Your task to perform on an android device: Check the settings for the Google Play Movies app Image 0: 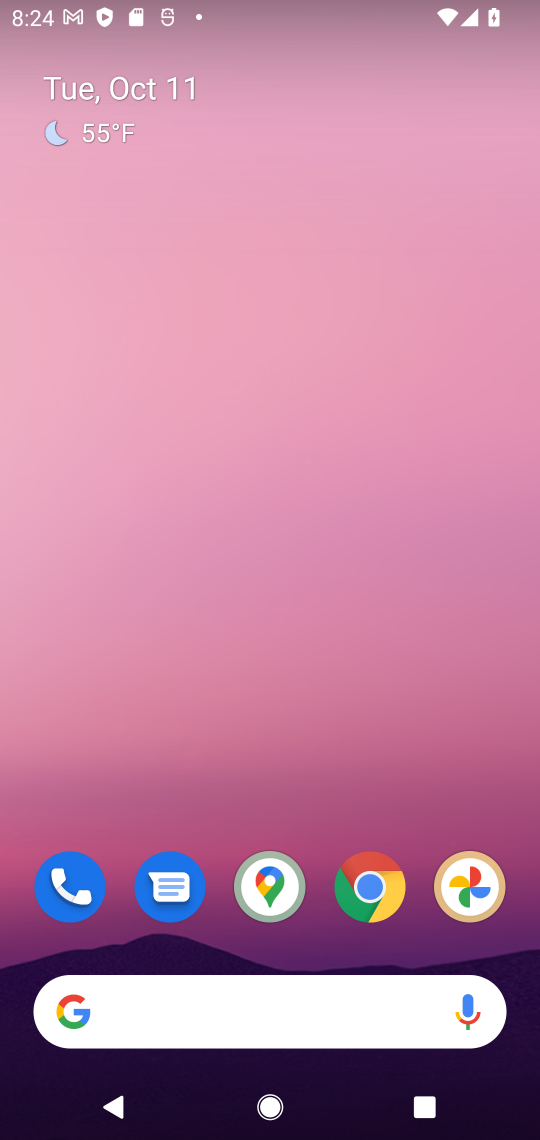
Step 0: drag from (387, 820) to (331, 401)
Your task to perform on an android device: Check the settings for the Google Play Movies app Image 1: 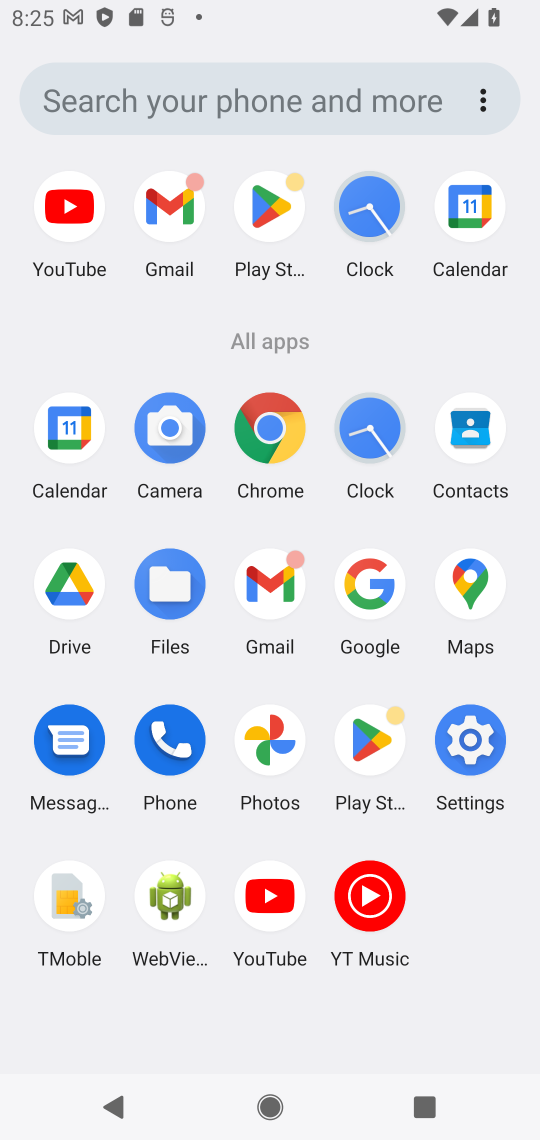
Step 1: task complete